Your task to perform on an android device: Open the Play Movies app and select the watchlist tab. Image 0: 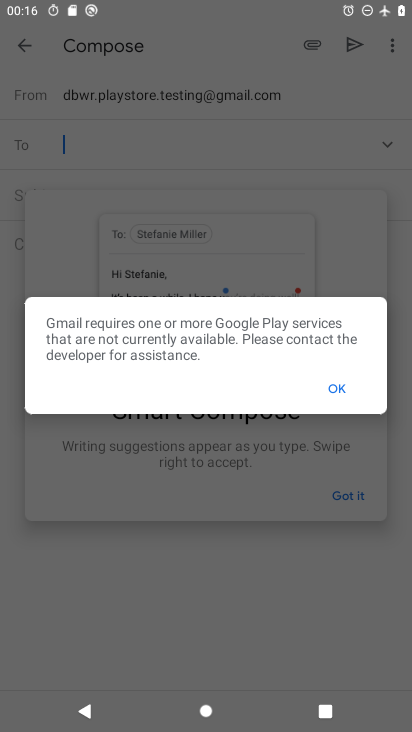
Step 0: press home button
Your task to perform on an android device: Open the Play Movies app and select the watchlist tab. Image 1: 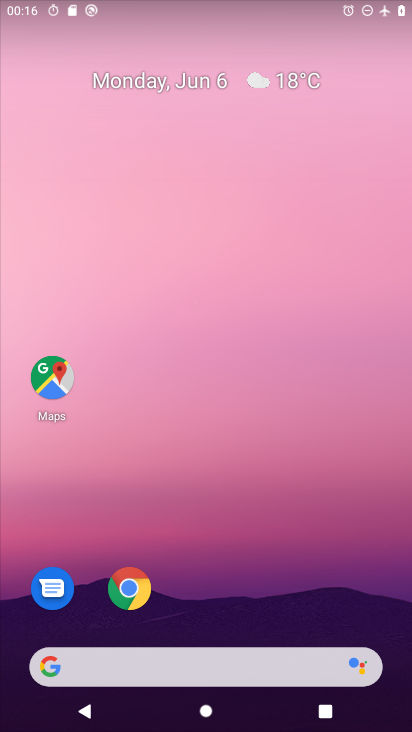
Step 1: drag from (340, 595) to (346, 134)
Your task to perform on an android device: Open the Play Movies app and select the watchlist tab. Image 2: 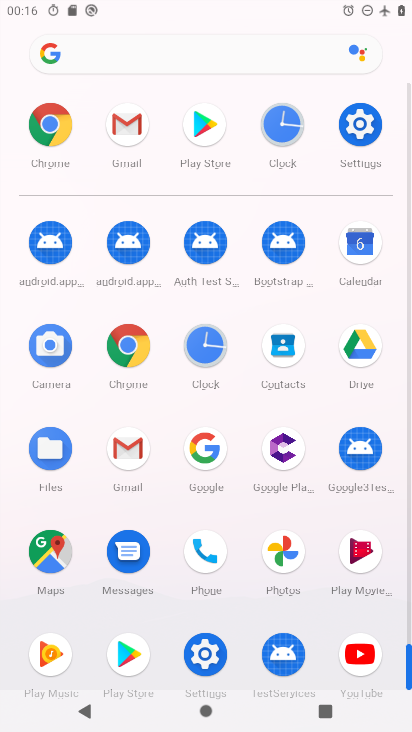
Step 2: click (357, 548)
Your task to perform on an android device: Open the Play Movies app and select the watchlist tab. Image 3: 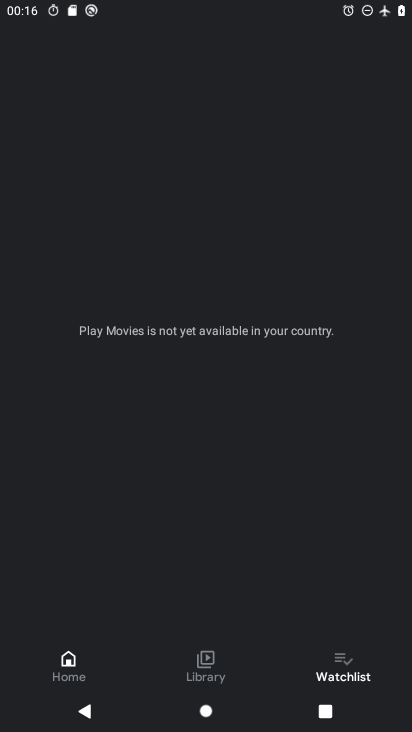
Step 3: task complete